Your task to perform on an android device: When is my next appointment? Image 0: 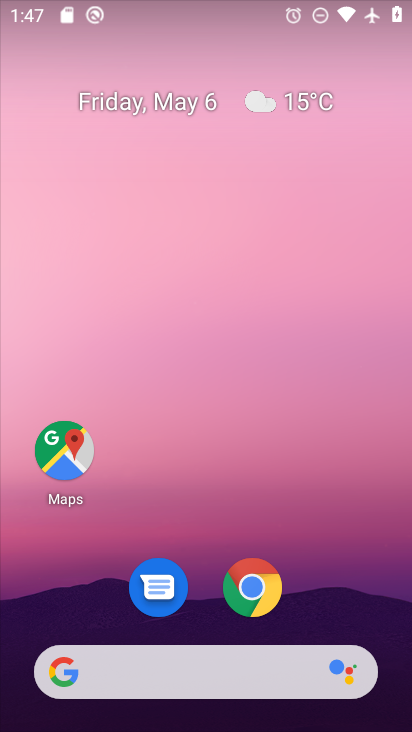
Step 0: drag from (252, 182) to (232, 83)
Your task to perform on an android device: When is my next appointment? Image 1: 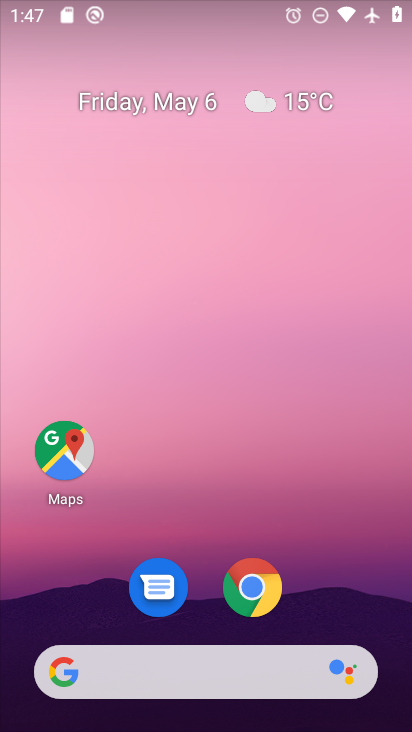
Step 1: drag from (333, 571) to (219, 19)
Your task to perform on an android device: When is my next appointment? Image 2: 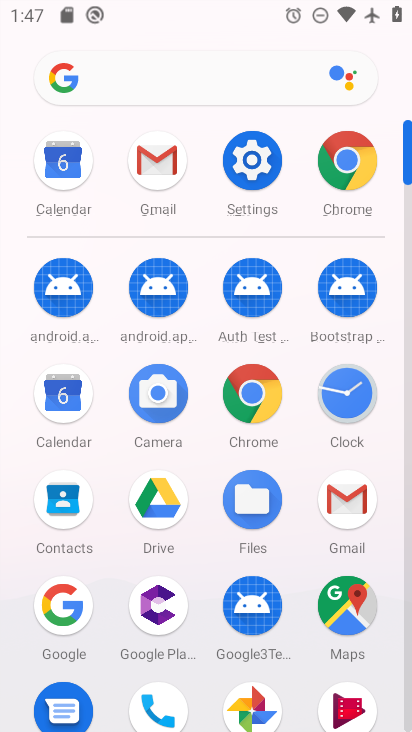
Step 2: click (53, 398)
Your task to perform on an android device: When is my next appointment? Image 3: 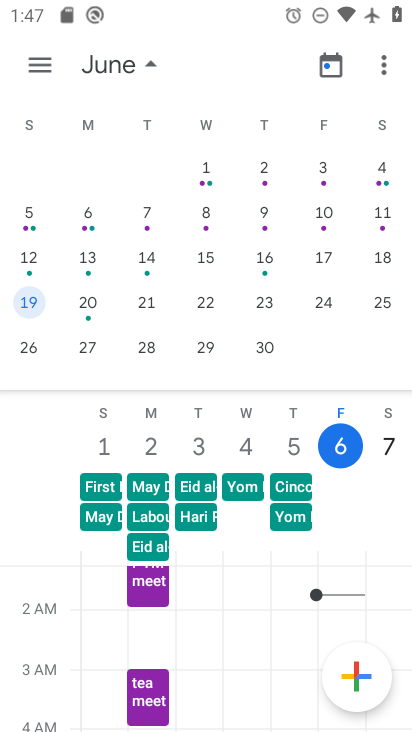
Step 3: task complete